Your task to perform on an android device: open app "Google Drive" (install if not already installed) Image 0: 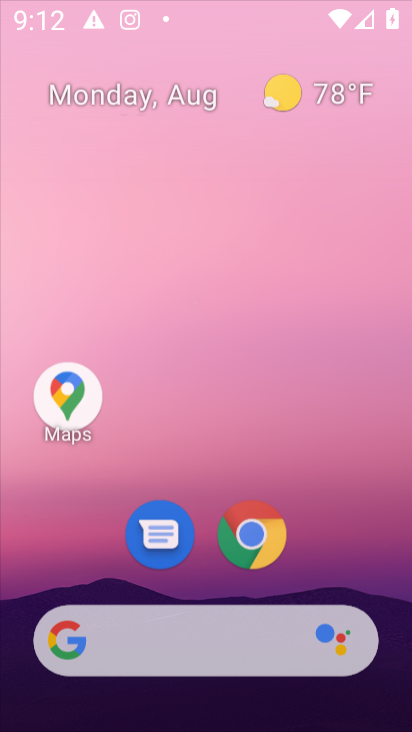
Step 0: press home button
Your task to perform on an android device: open app "Google Drive" (install if not already installed) Image 1: 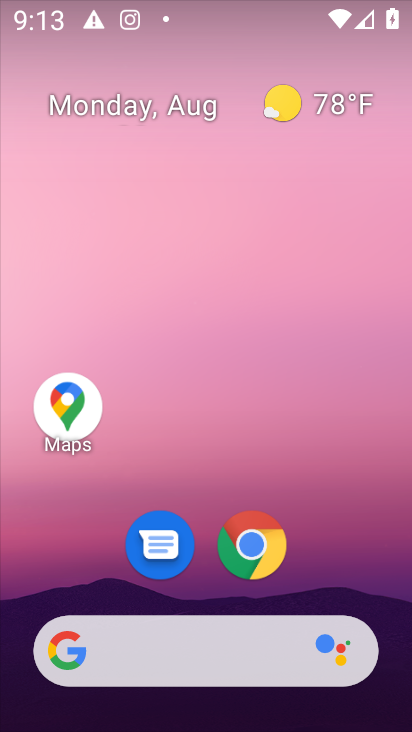
Step 1: drag from (337, 569) to (339, 90)
Your task to perform on an android device: open app "Google Drive" (install if not already installed) Image 2: 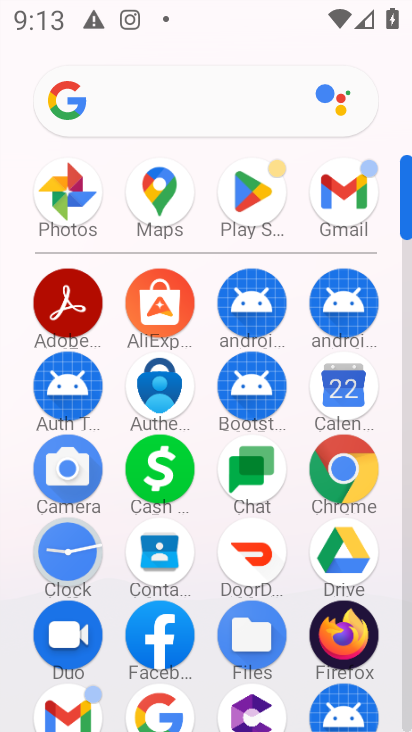
Step 2: click (247, 195)
Your task to perform on an android device: open app "Google Drive" (install if not already installed) Image 3: 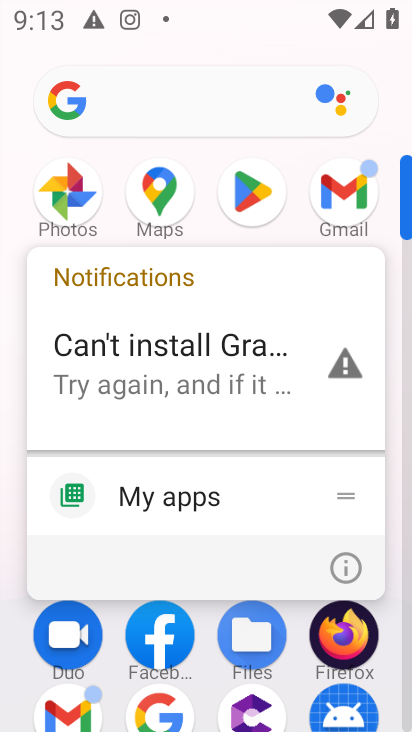
Step 3: click (246, 187)
Your task to perform on an android device: open app "Google Drive" (install if not already installed) Image 4: 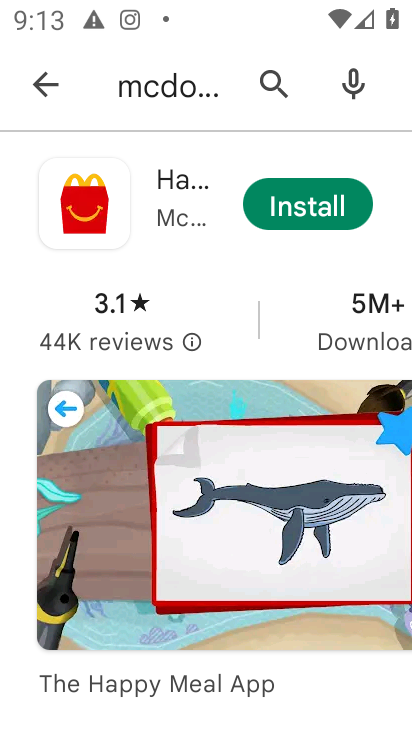
Step 4: press back button
Your task to perform on an android device: open app "Google Drive" (install if not already installed) Image 5: 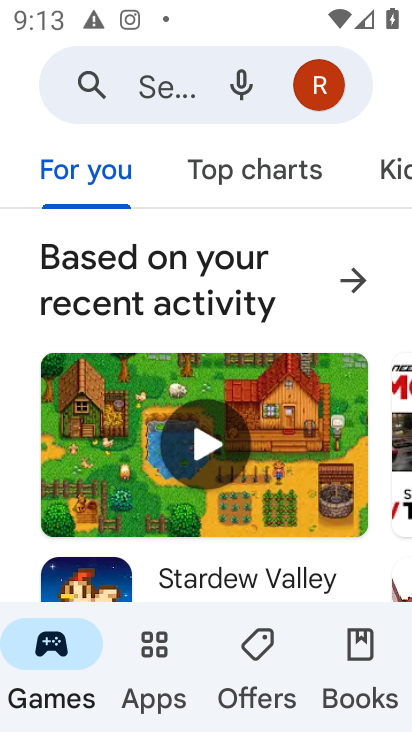
Step 5: click (143, 94)
Your task to perform on an android device: open app "Google Drive" (install if not already installed) Image 6: 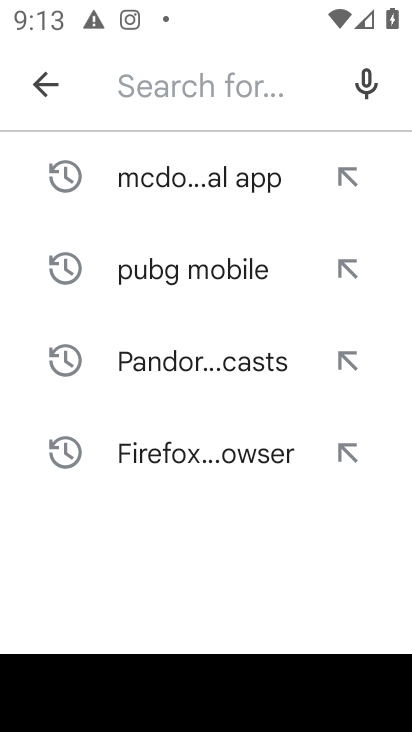
Step 6: type "google drive"
Your task to perform on an android device: open app "Google Drive" (install if not already installed) Image 7: 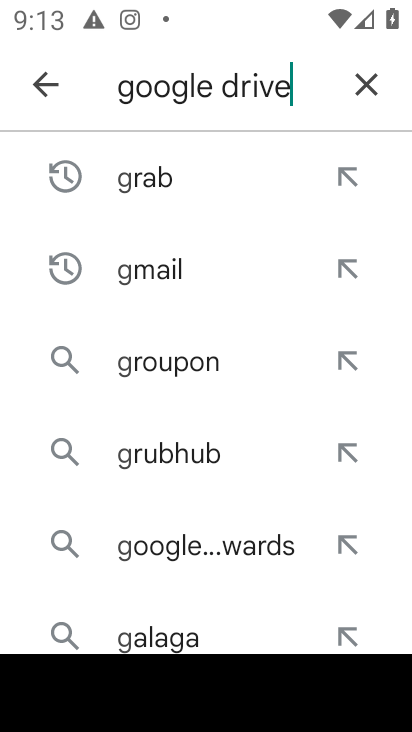
Step 7: press enter
Your task to perform on an android device: open app "Google Drive" (install if not already installed) Image 8: 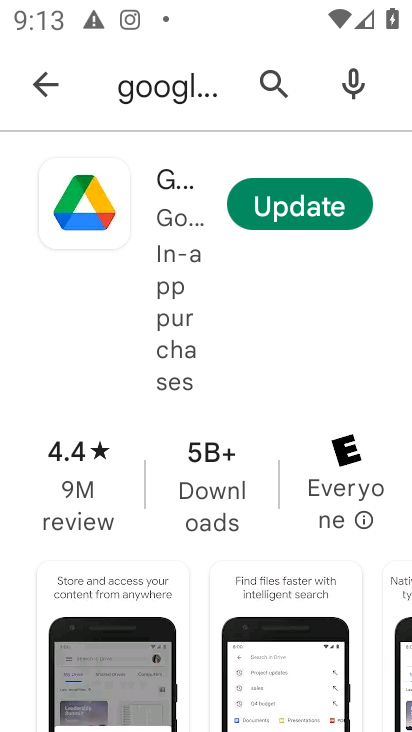
Step 8: click (312, 203)
Your task to perform on an android device: open app "Google Drive" (install if not already installed) Image 9: 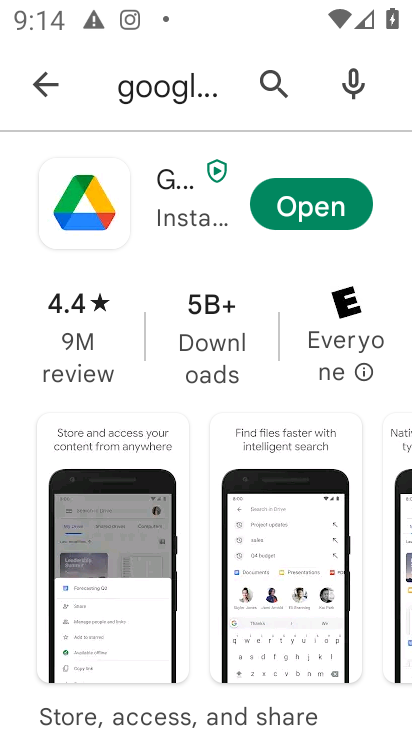
Step 9: click (305, 208)
Your task to perform on an android device: open app "Google Drive" (install if not already installed) Image 10: 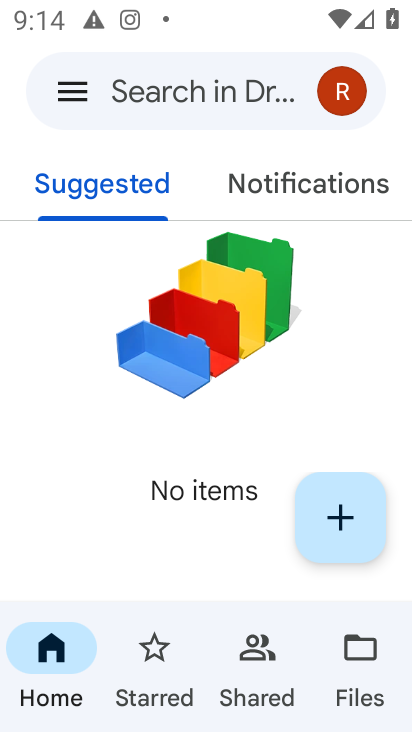
Step 10: task complete